Your task to perform on an android device: turn notification dots on Image 0: 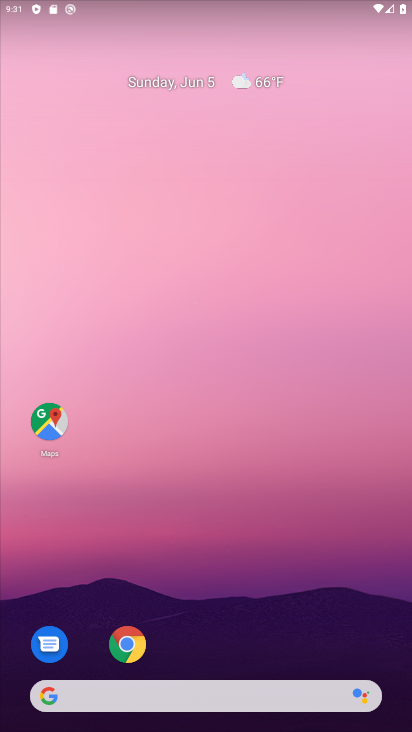
Step 0: drag from (211, 637) to (225, 426)
Your task to perform on an android device: turn notification dots on Image 1: 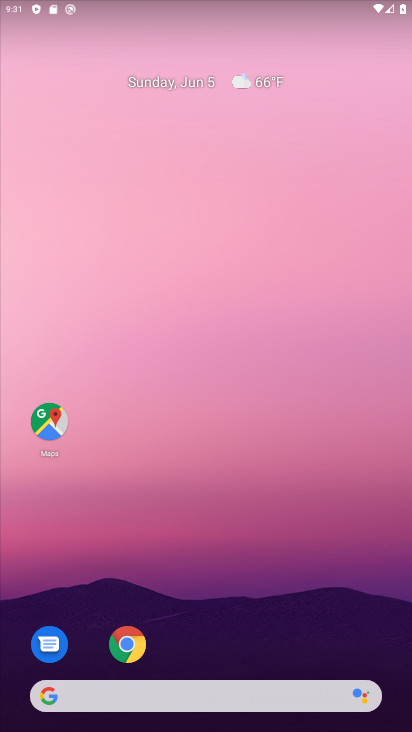
Step 1: drag from (217, 668) to (321, 0)
Your task to perform on an android device: turn notification dots on Image 2: 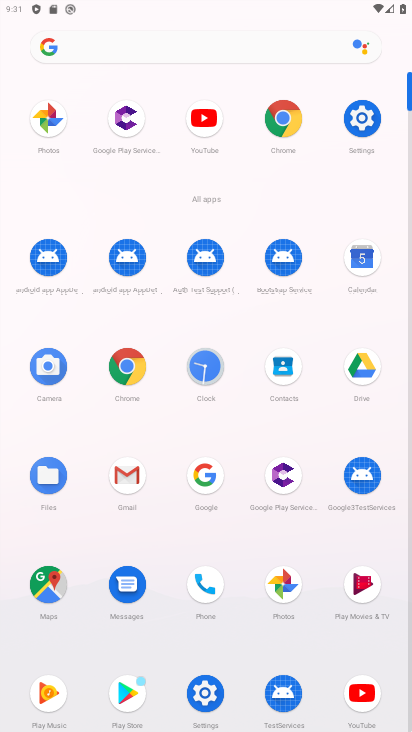
Step 2: click (370, 130)
Your task to perform on an android device: turn notification dots on Image 3: 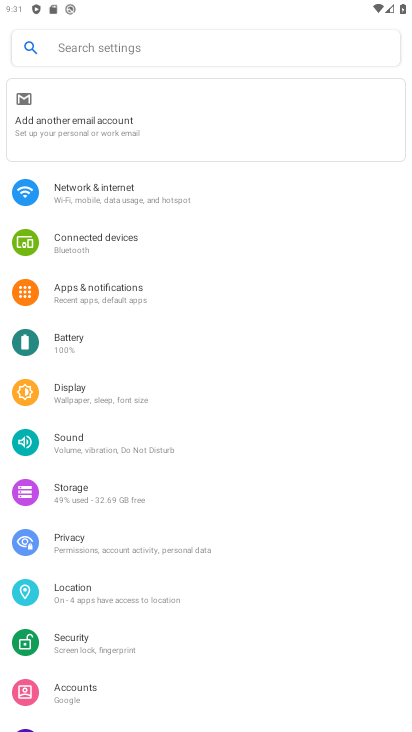
Step 3: click (129, 287)
Your task to perform on an android device: turn notification dots on Image 4: 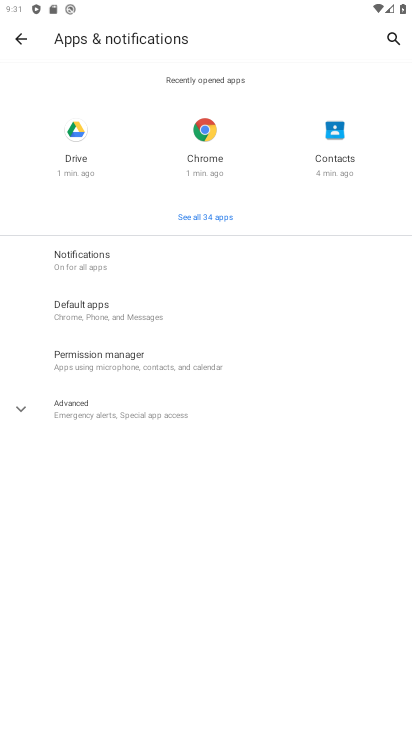
Step 4: click (110, 265)
Your task to perform on an android device: turn notification dots on Image 5: 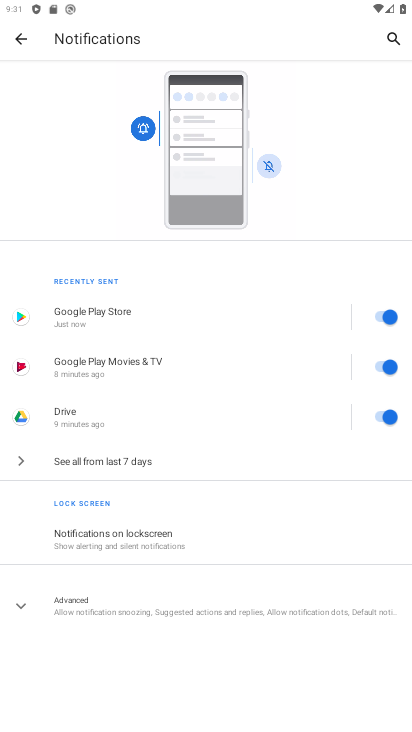
Step 5: click (149, 611)
Your task to perform on an android device: turn notification dots on Image 6: 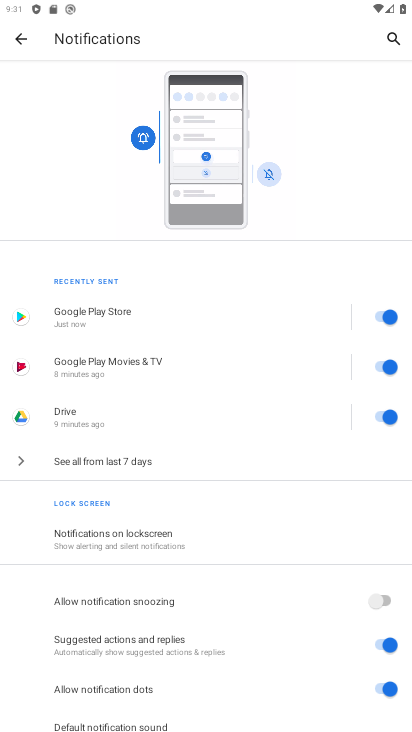
Step 6: drag from (181, 631) to (187, 430)
Your task to perform on an android device: turn notification dots on Image 7: 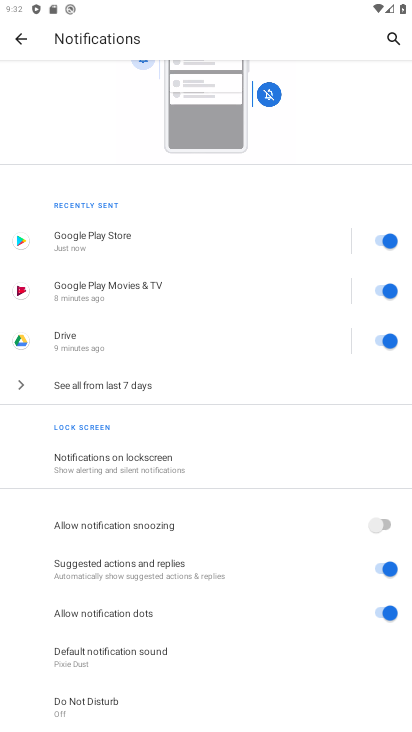
Step 7: press home button
Your task to perform on an android device: turn notification dots on Image 8: 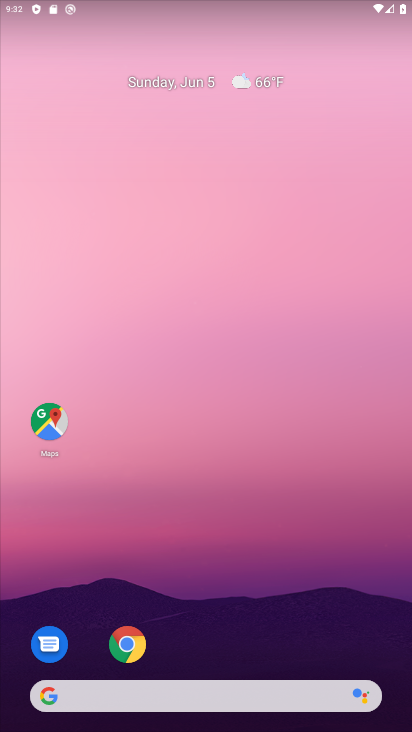
Step 8: drag from (217, 607) to (256, 354)
Your task to perform on an android device: turn notification dots on Image 9: 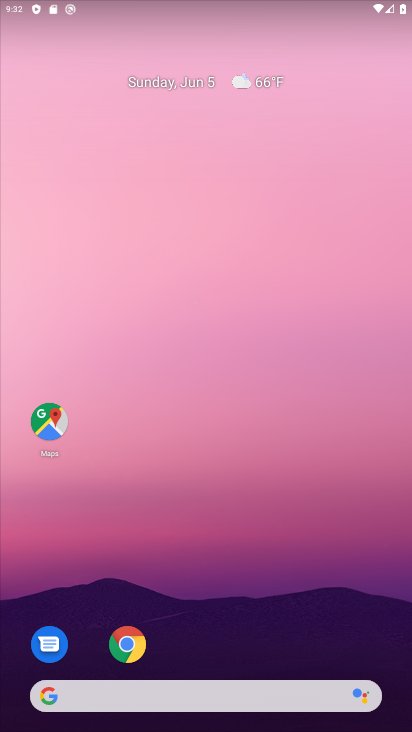
Step 9: drag from (212, 681) to (337, 2)
Your task to perform on an android device: turn notification dots on Image 10: 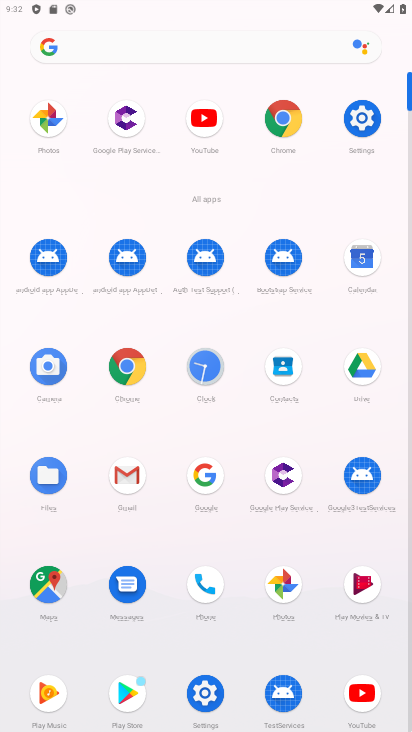
Step 10: click (369, 126)
Your task to perform on an android device: turn notification dots on Image 11: 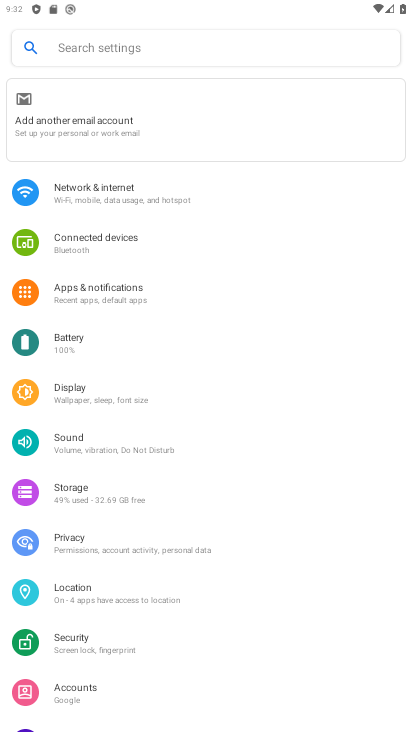
Step 11: click (126, 296)
Your task to perform on an android device: turn notification dots on Image 12: 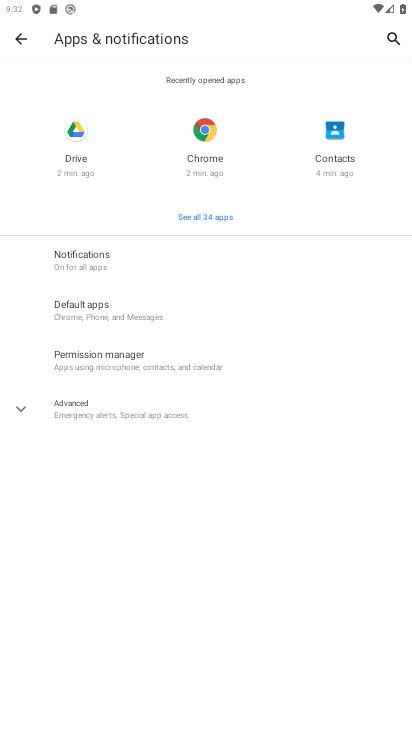
Step 12: click (121, 269)
Your task to perform on an android device: turn notification dots on Image 13: 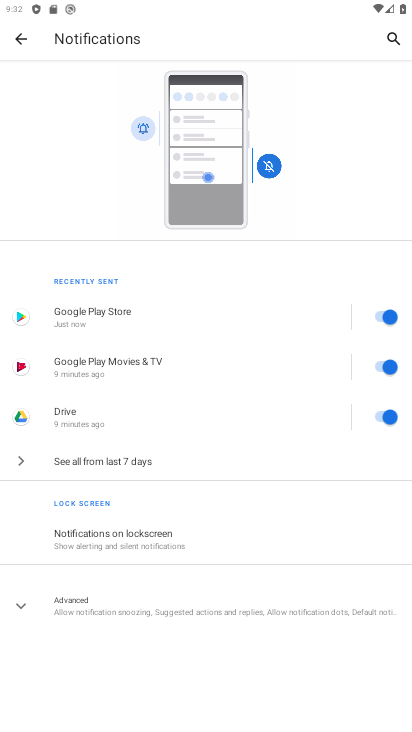
Step 13: click (121, 612)
Your task to perform on an android device: turn notification dots on Image 14: 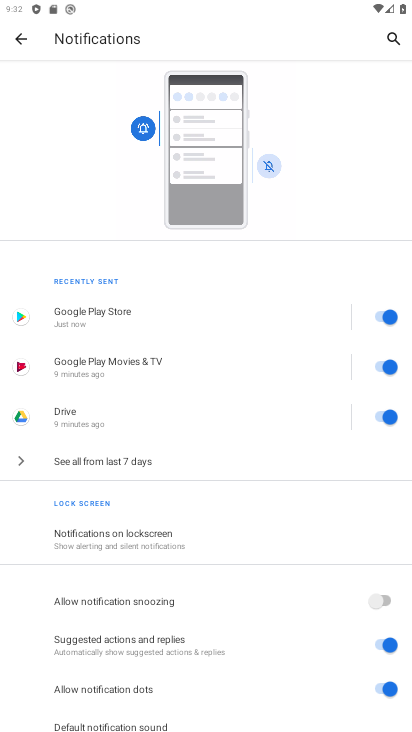
Step 14: task complete